Your task to perform on an android device: Search for Italian restaurants on Maps Image 0: 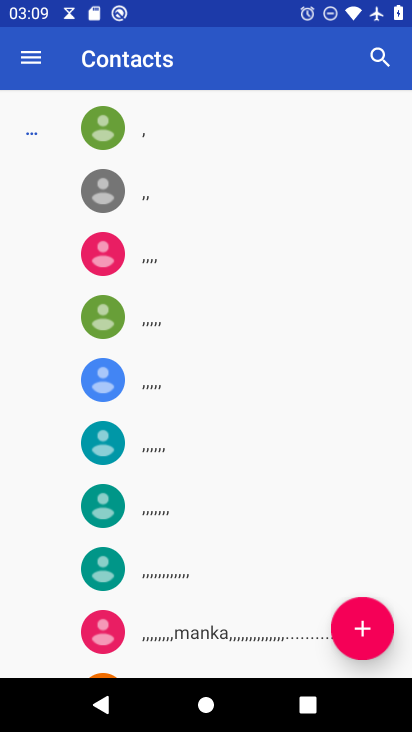
Step 0: press home button
Your task to perform on an android device: Search for Italian restaurants on Maps Image 1: 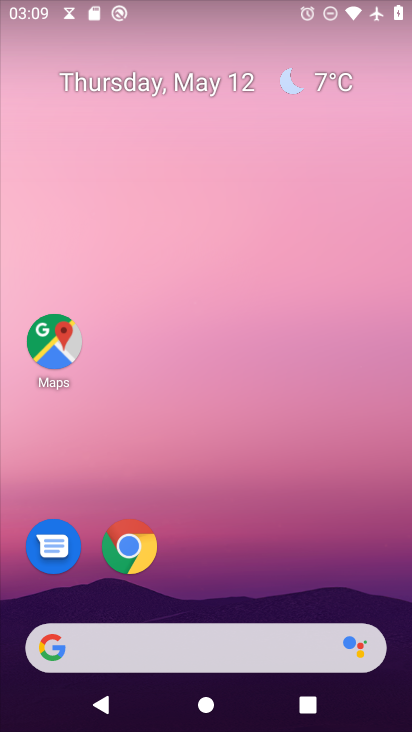
Step 1: drag from (119, 651) to (258, 270)
Your task to perform on an android device: Search for Italian restaurants on Maps Image 2: 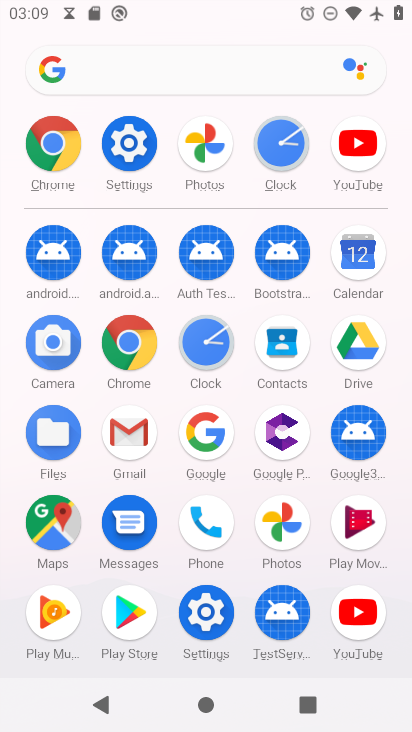
Step 2: click (54, 529)
Your task to perform on an android device: Search for Italian restaurants on Maps Image 3: 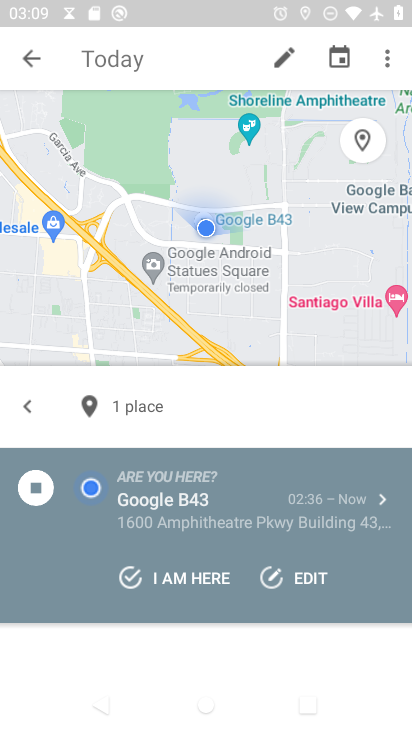
Step 3: click (31, 53)
Your task to perform on an android device: Search for Italian restaurants on Maps Image 4: 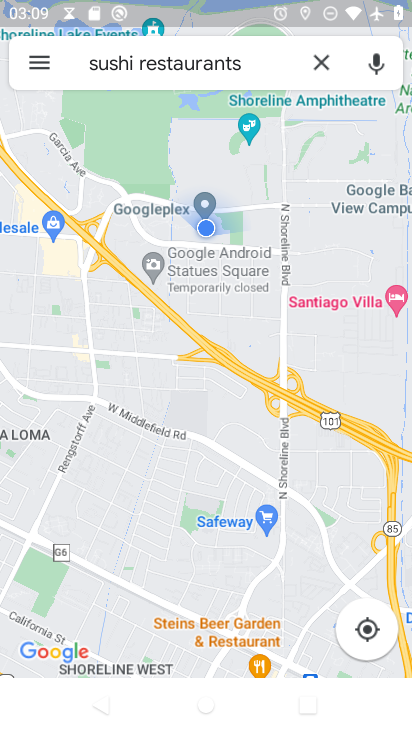
Step 4: click (319, 63)
Your task to perform on an android device: Search for Italian restaurants on Maps Image 5: 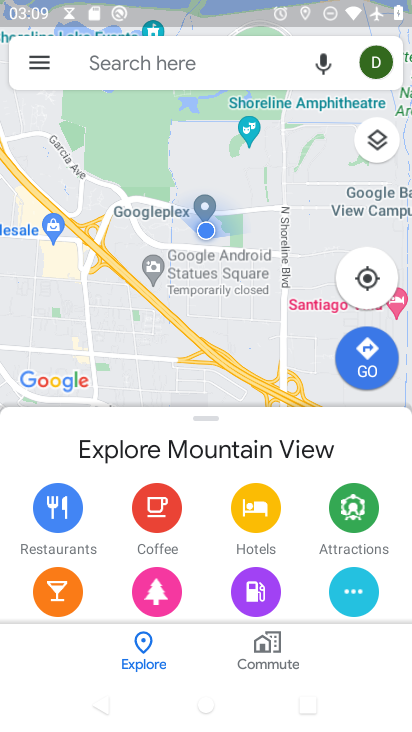
Step 5: click (191, 70)
Your task to perform on an android device: Search for Italian restaurants on Maps Image 6: 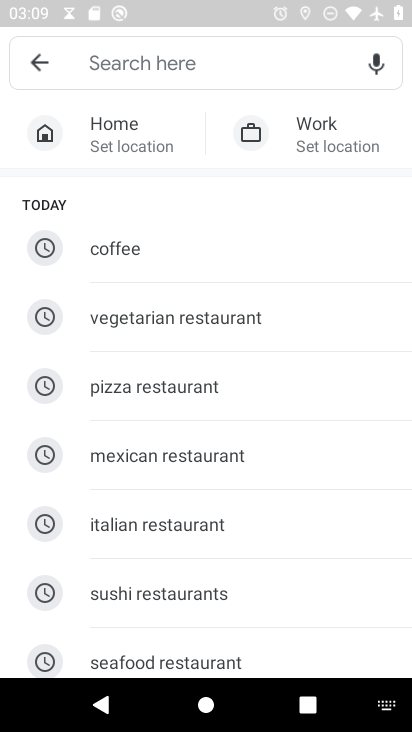
Step 6: click (151, 523)
Your task to perform on an android device: Search for Italian restaurants on Maps Image 7: 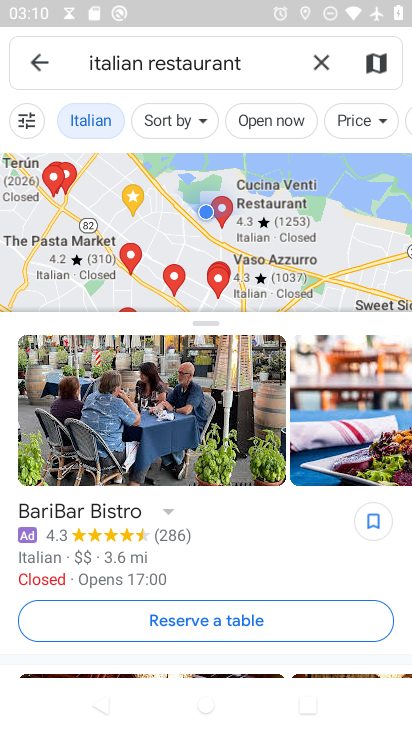
Step 7: task complete